Your task to perform on an android device: turn on improve location accuracy Image 0: 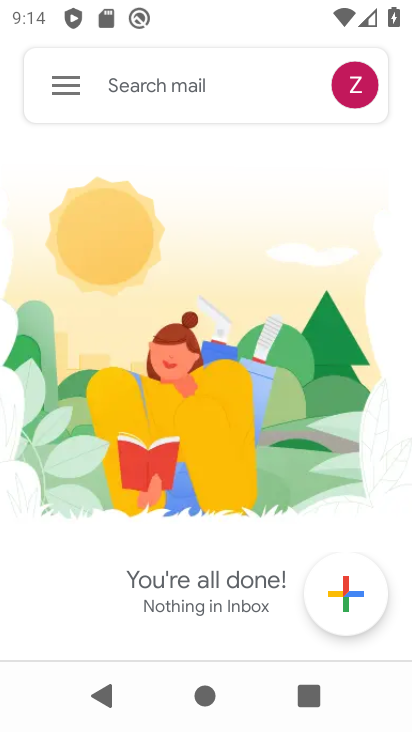
Step 0: press home button
Your task to perform on an android device: turn on improve location accuracy Image 1: 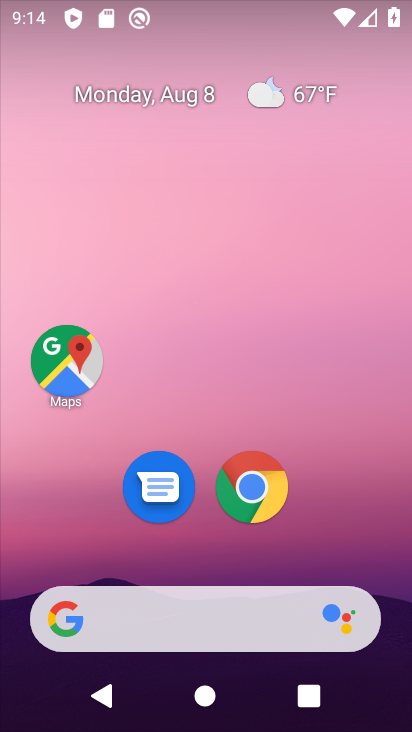
Step 1: drag from (204, 393) to (204, 80)
Your task to perform on an android device: turn on improve location accuracy Image 2: 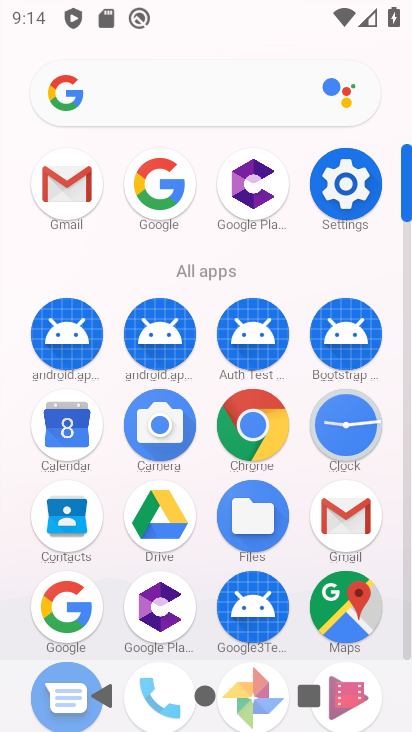
Step 2: click (342, 185)
Your task to perform on an android device: turn on improve location accuracy Image 3: 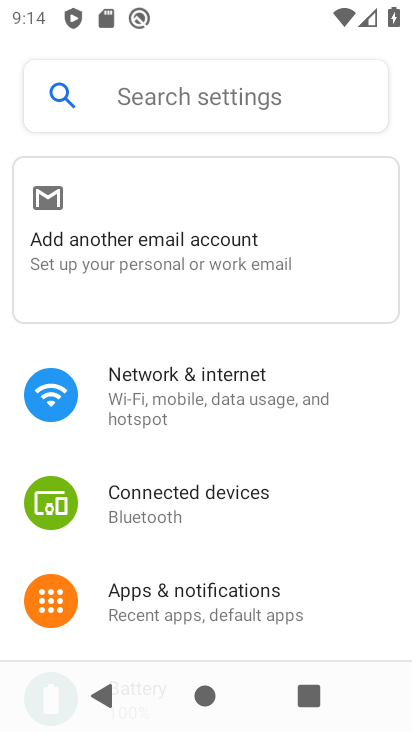
Step 3: drag from (172, 630) to (172, 489)
Your task to perform on an android device: turn on improve location accuracy Image 4: 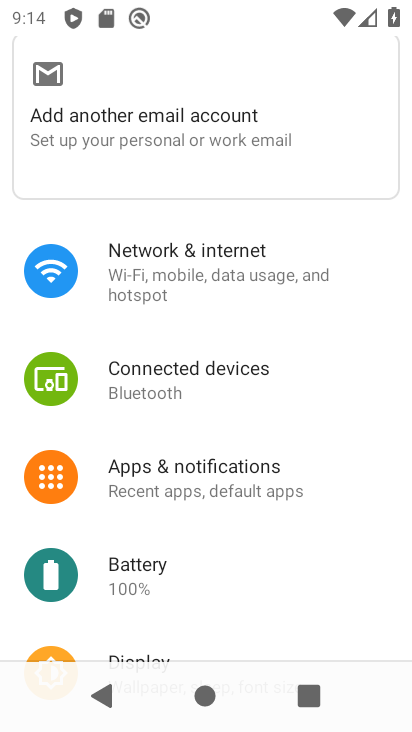
Step 4: drag from (162, 629) to (168, 357)
Your task to perform on an android device: turn on improve location accuracy Image 5: 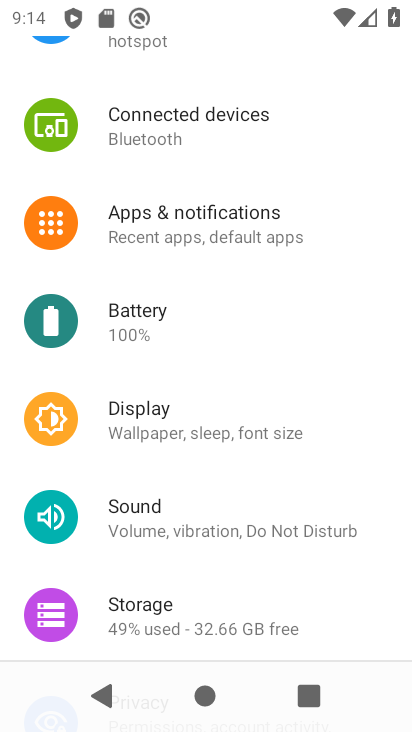
Step 5: drag from (166, 597) to (163, 308)
Your task to perform on an android device: turn on improve location accuracy Image 6: 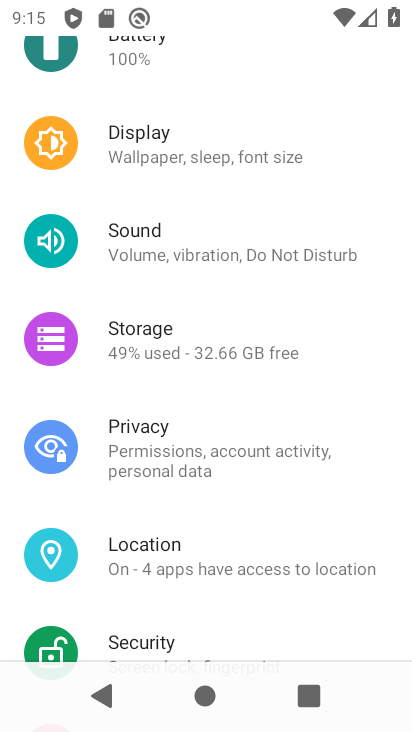
Step 6: click (155, 562)
Your task to perform on an android device: turn on improve location accuracy Image 7: 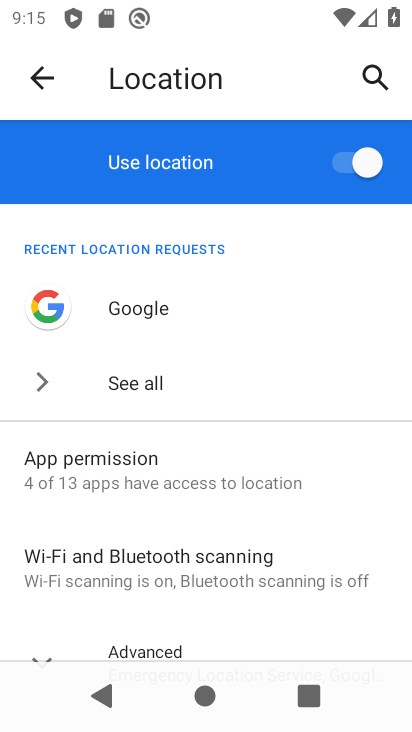
Step 7: drag from (162, 622) to (177, 344)
Your task to perform on an android device: turn on improve location accuracy Image 8: 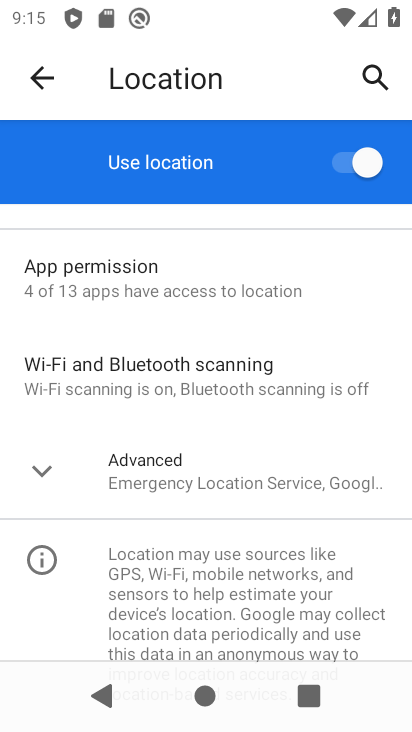
Step 8: click (180, 470)
Your task to perform on an android device: turn on improve location accuracy Image 9: 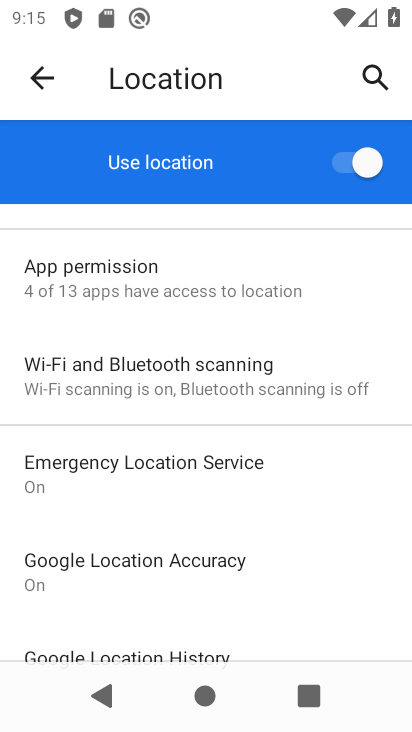
Step 9: click (171, 560)
Your task to perform on an android device: turn on improve location accuracy Image 10: 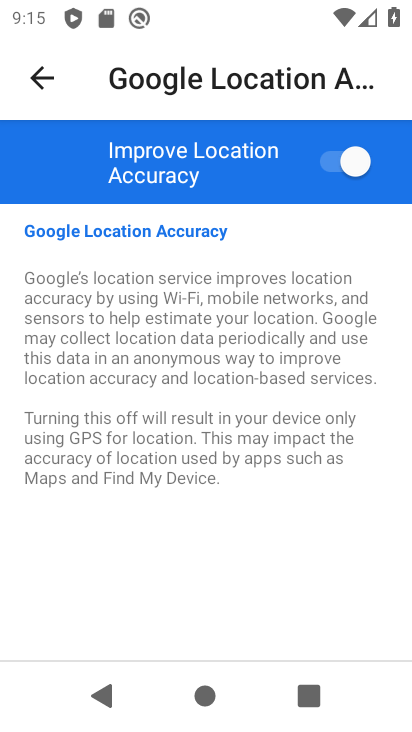
Step 10: task complete